Your task to perform on an android device: When is my next meeting? Image 0: 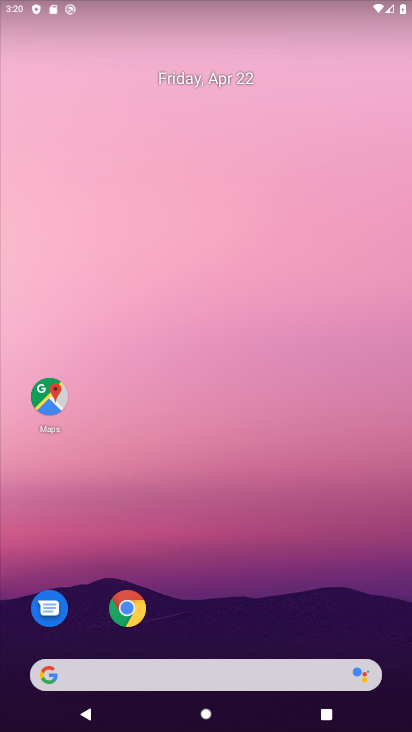
Step 0: drag from (298, 632) to (239, 80)
Your task to perform on an android device: When is my next meeting? Image 1: 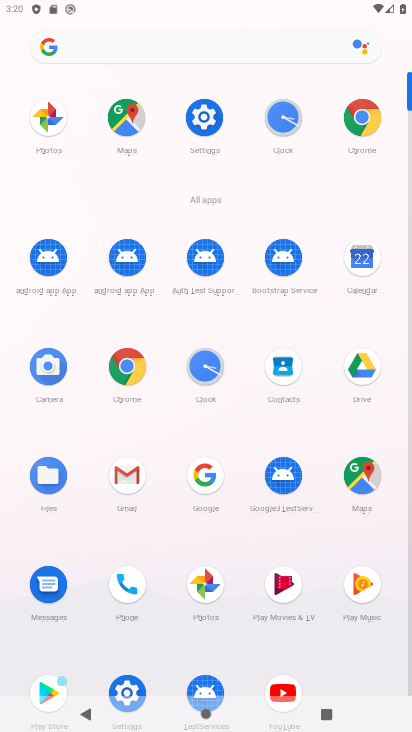
Step 1: click (357, 267)
Your task to perform on an android device: When is my next meeting? Image 2: 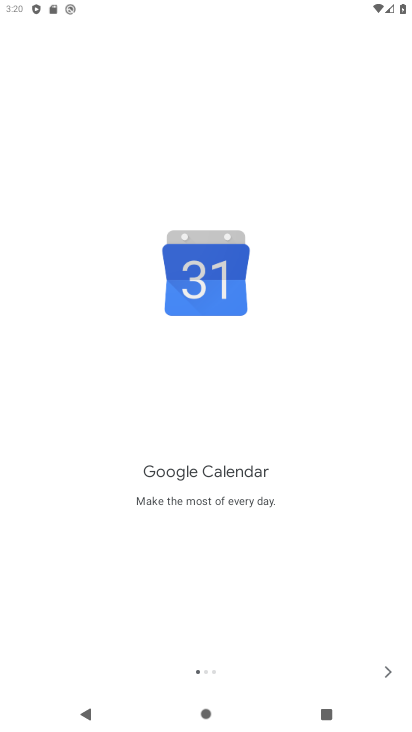
Step 2: click (389, 670)
Your task to perform on an android device: When is my next meeting? Image 3: 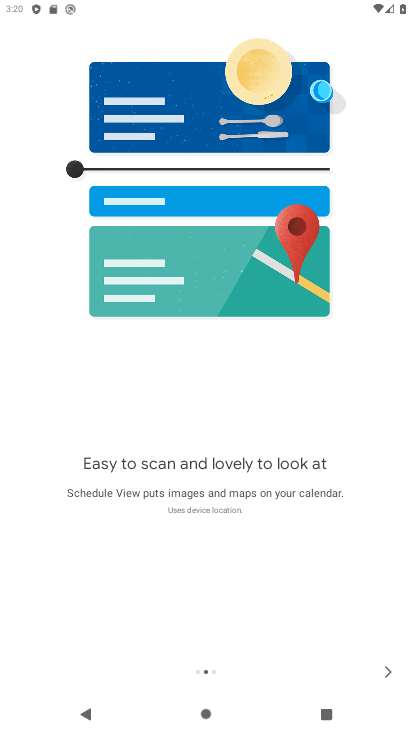
Step 3: click (389, 670)
Your task to perform on an android device: When is my next meeting? Image 4: 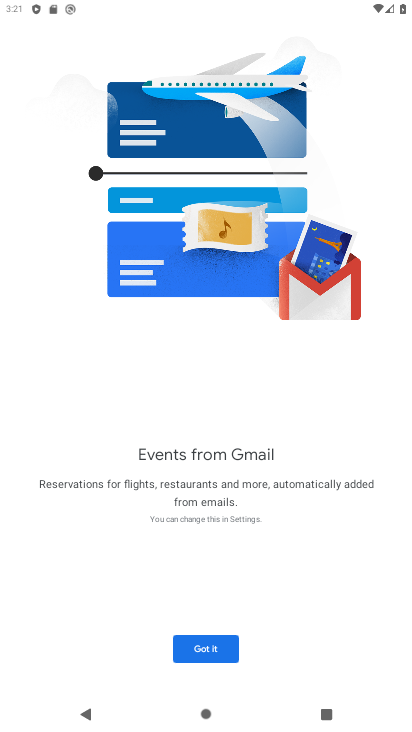
Step 4: click (215, 644)
Your task to perform on an android device: When is my next meeting? Image 5: 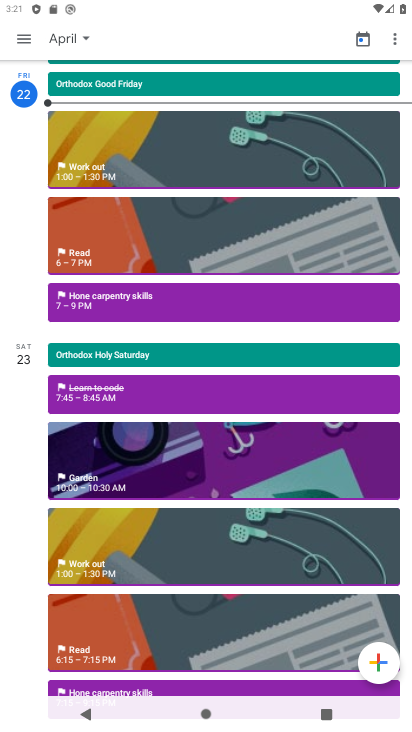
Step 5: click (64, 44)
Your task to perform on an android device: When is my next meeting? Image 6: 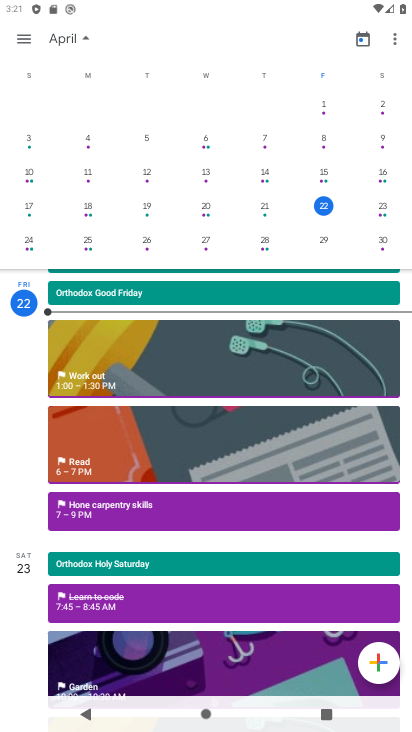
Step 6: click (320, 207)
Your task to perform on an android device: When is my next meeting? Image 7: 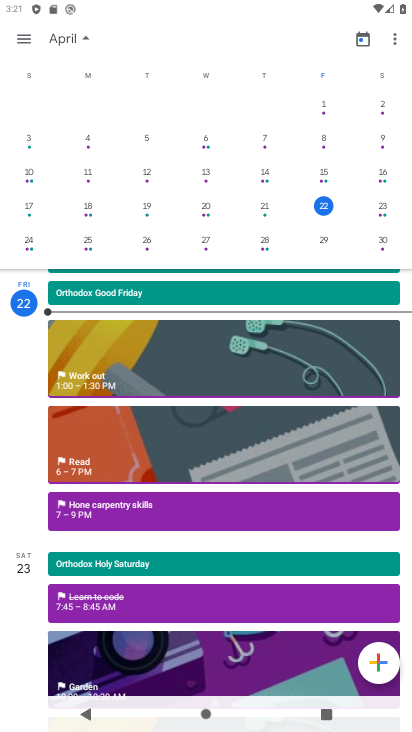
Step 7: click (76, 40)
Your task to perform on an android device: When is my next meeting? Image 8: 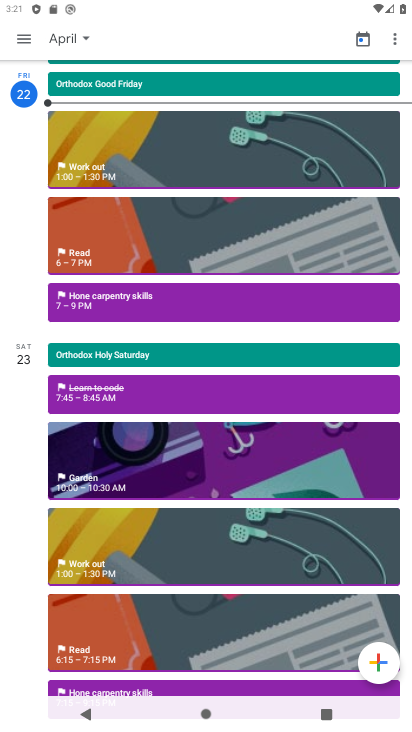
Step 8: click (14, 31)
Your task to perform on an android device: When is my next meeting? Image 9: 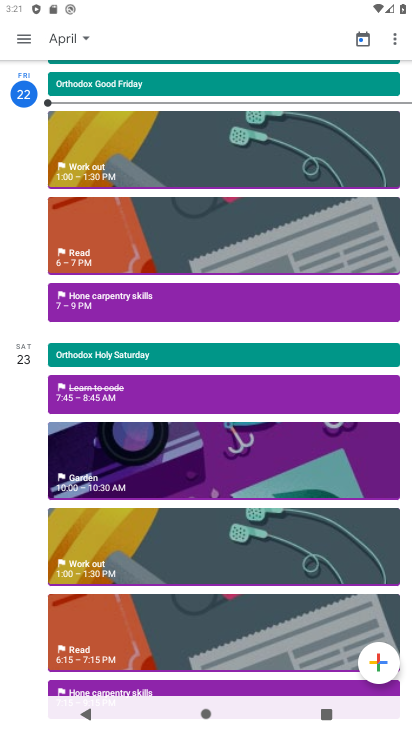
Step 9: click (22, 37)
Your task to perform on an android device: When is my next meeting? Image 10: 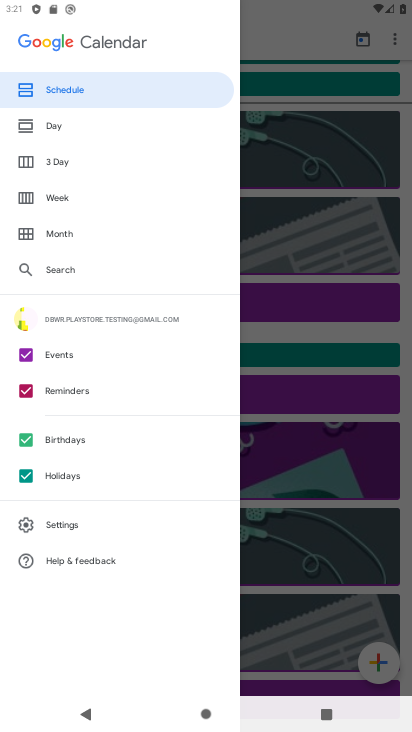
Step 10: click (82, 120)
Your task to perform on an android device: When is my next meeting? Image 11: 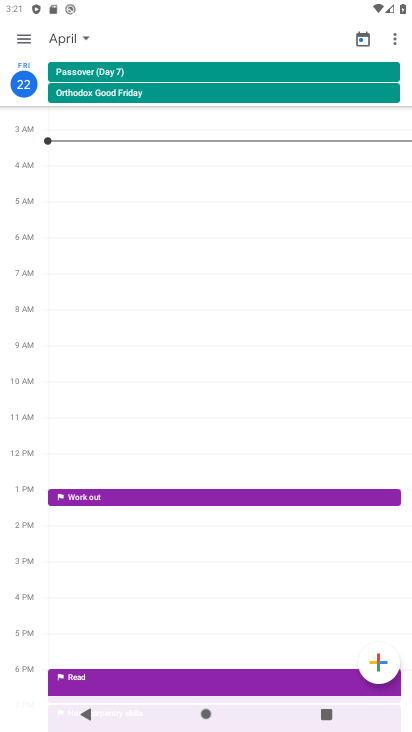
Step 11: task complete